Your task to perform on an android device: Open network settings Image 0: 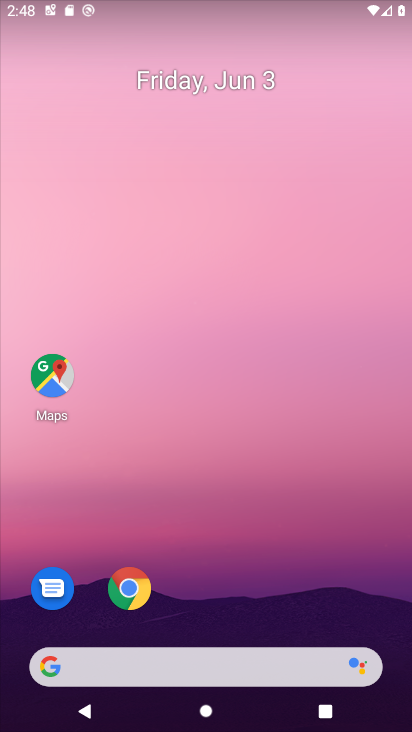
Step 0: drag from (257, 602) to (236, 0)
Your task to perform on an android device: Open network settings Image 1: 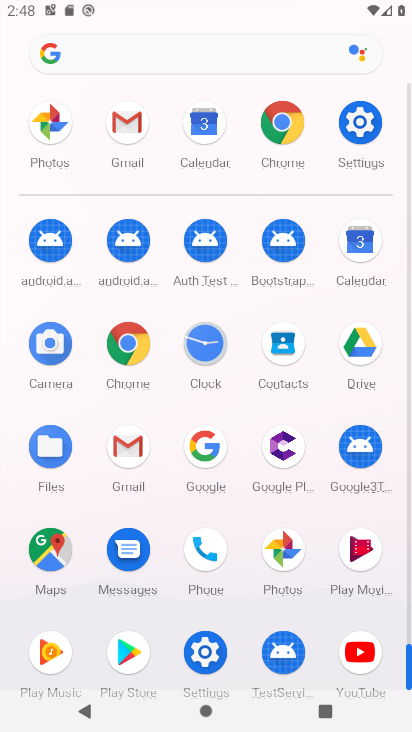
Step 1: click (357, 160)
Your task to perform on an android device: Open network settings Image 2: 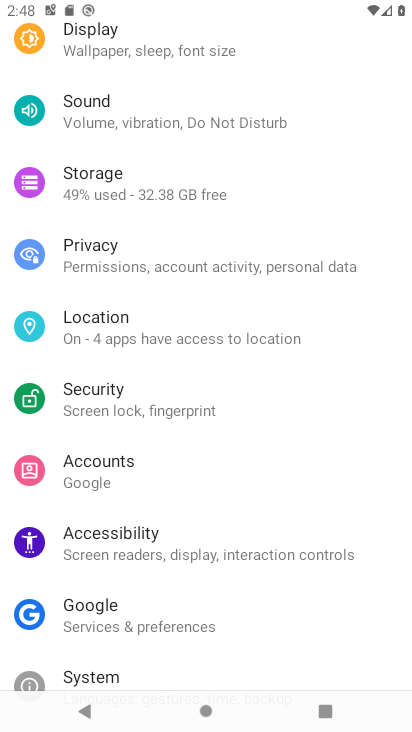
Step 2: drag from (171, 210) to (171, 590)
Your task to perform on an android device: Open network settings Image 3: 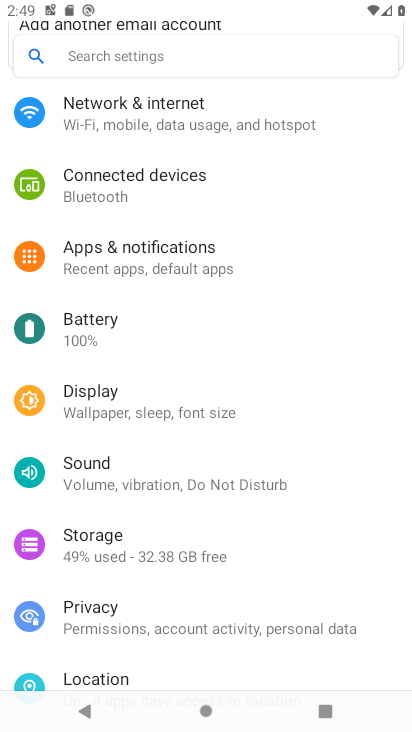
Step 3: click (163, 130)
Your task to perform on an android device: Open network settings Image 4: 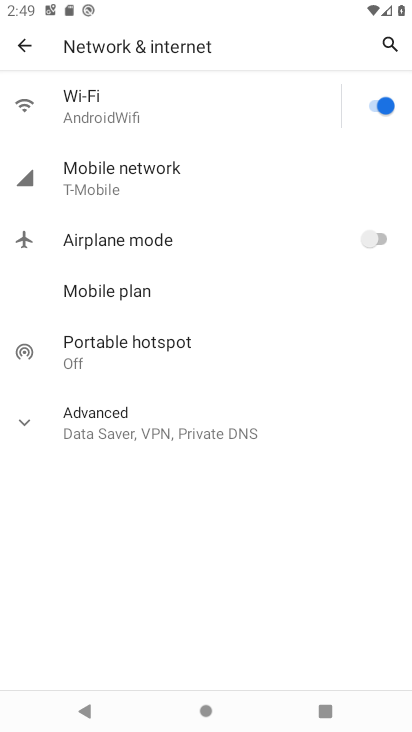
Step 4: click (171, 176)
Your task to perform on an android device: Open network settings Image 5: 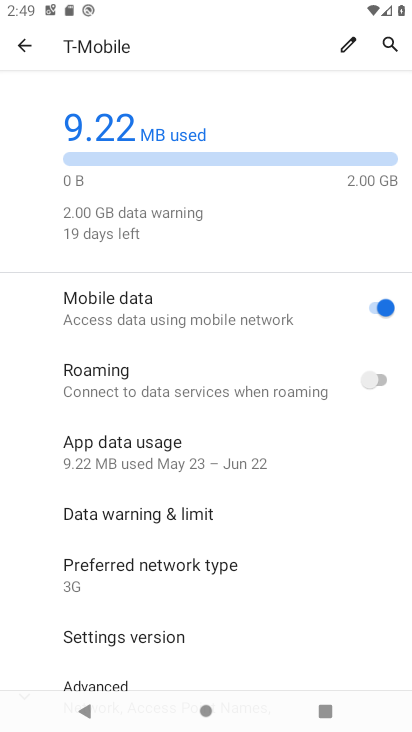
Step 5: task complete